Your task to perform on an android device: Empty the shopping cart on amazon. Search for "razer deathadder" on amazon, select the first entry, add it to the cart, then select checkout. Image 0: 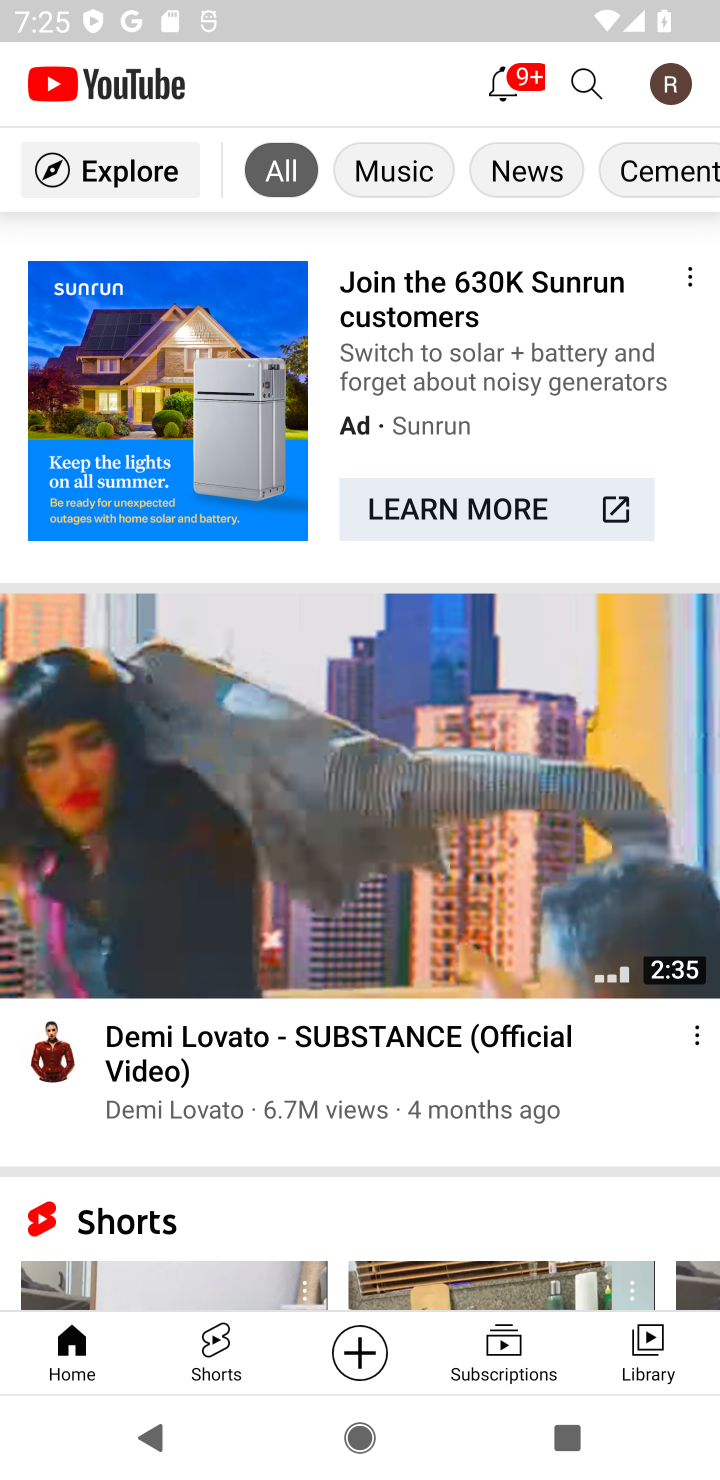
Step 0: press home button
Your task to perform on an android device: Empty the shopping cart on amazon. Search for "razer deathadder" on amazon, select the first entry, add it to the cart, then select checkout. Image 1: 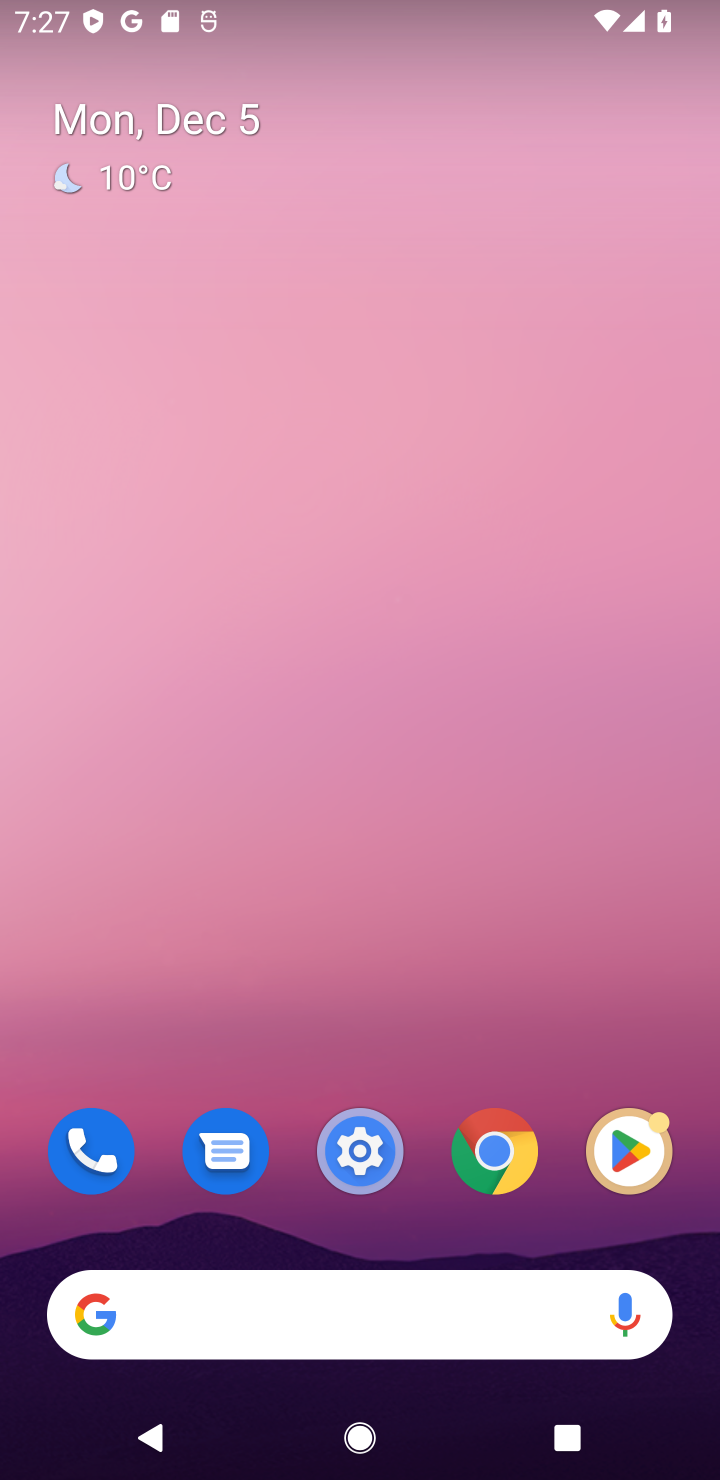
Step 1: click (175, 1303)
Your task to perform on an android device: Empty the shopping cart on amazon. Search for "razer deathadder" on amazon, select the first entry, add it to the cart, then select checkout. Image 2: 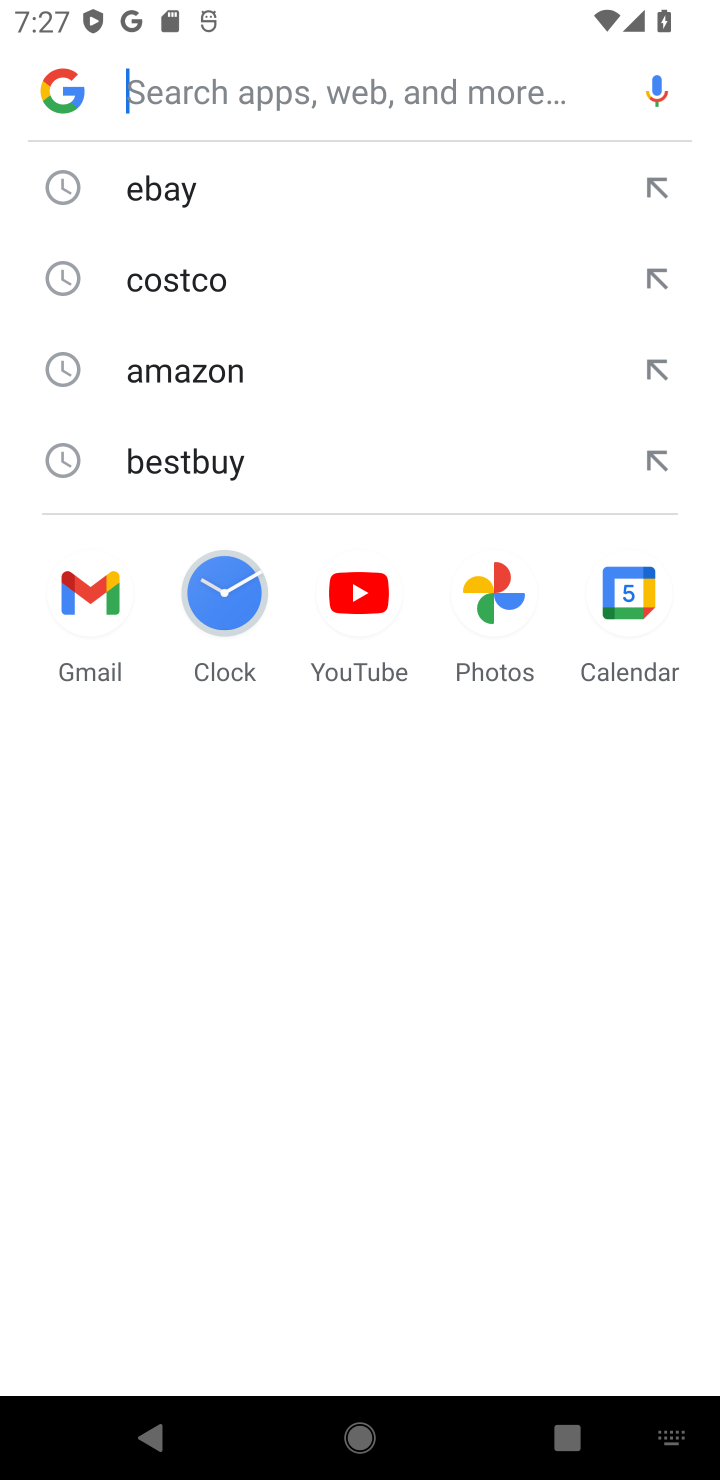
Step 2: type "ama"
Your task to perform on an android device: Empty the shopping cart on amazon. Search for "razer deathadder" on amazon, select the first entry, add it to the cart, then select checkout. Image 3: 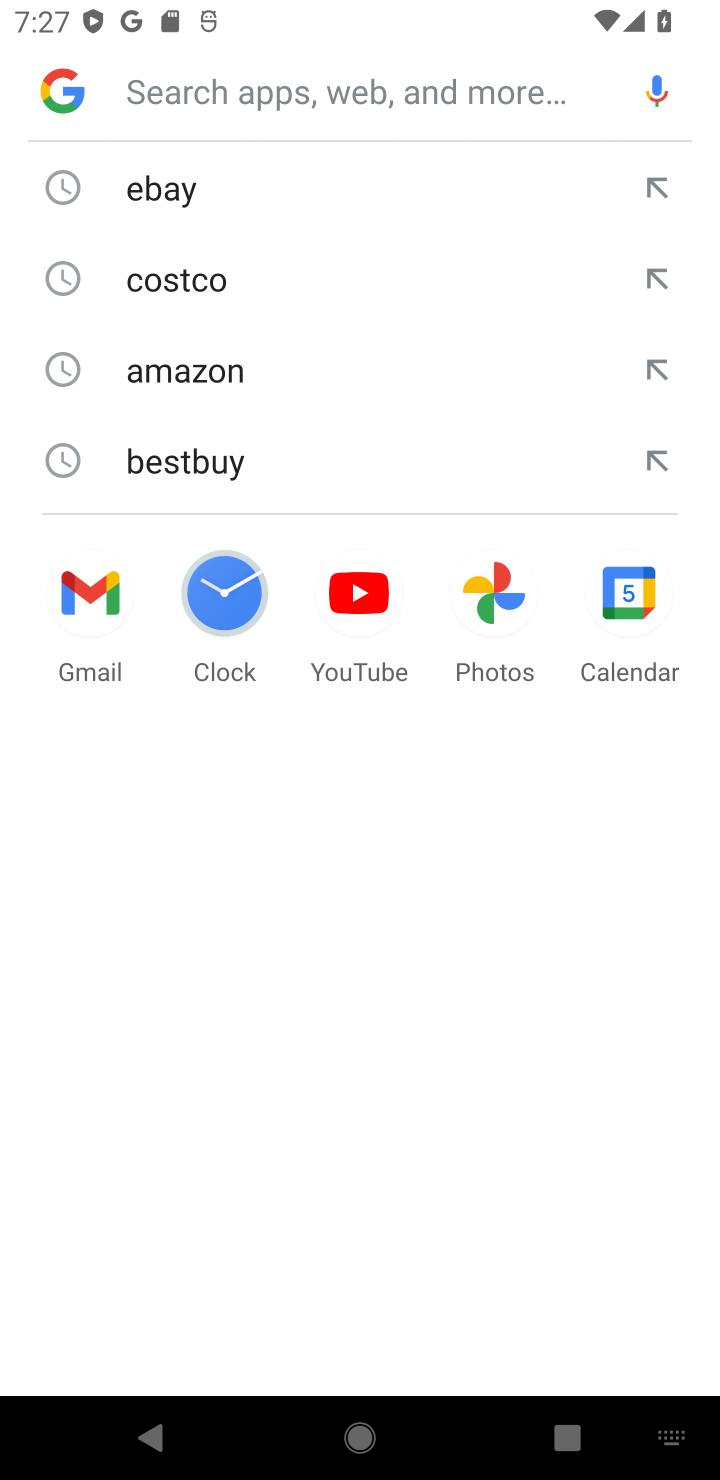
Step 3: click (194, 393)
Your task to perform on an android device: Empty the shopping cart on amazon. Search for "razer deathadder" on amazon, select the first entry, add it to the cart, then select checkout. Image 4: 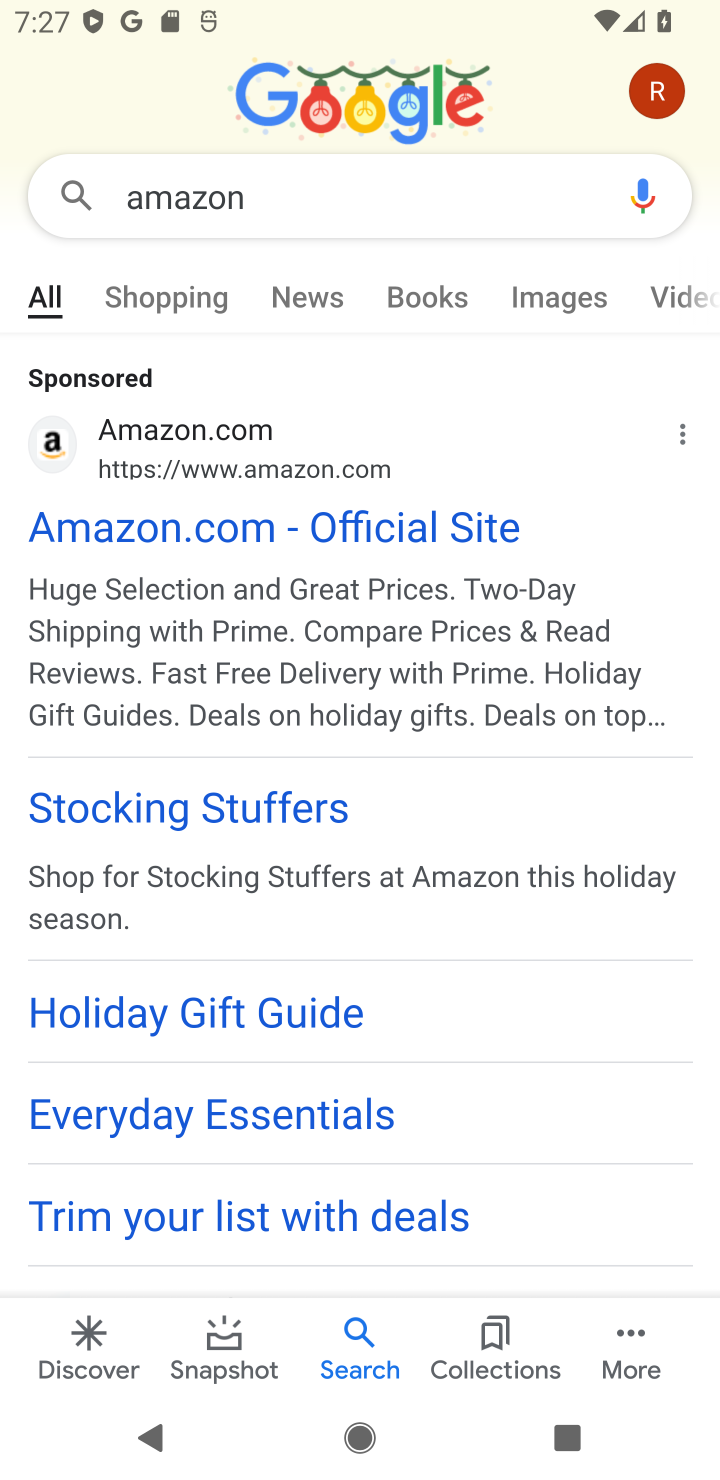
Step 4: click (103, 546)
Your task to perform on an android device: Empty the shopping cart on amazon. Search for "razer deathadder" on amazon, select the first entry, add it to the cart, then select checkout. Image 5: 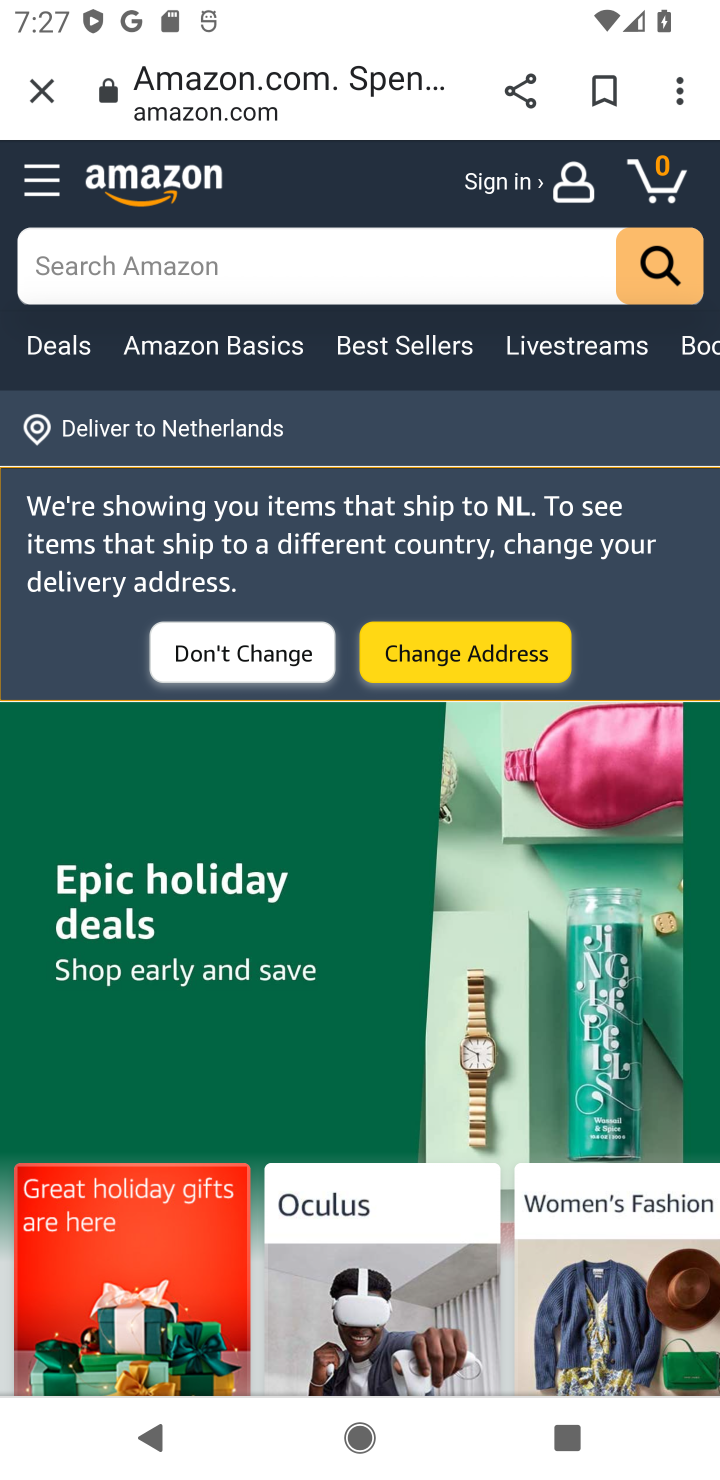
Step 5: click (294, 258)
Your task to perform on an android device: Empty the shopping cart on amazon. Search for "razer deathadder" on amazon, select the first entry, add it to the cart, then select checkout. Image 6: 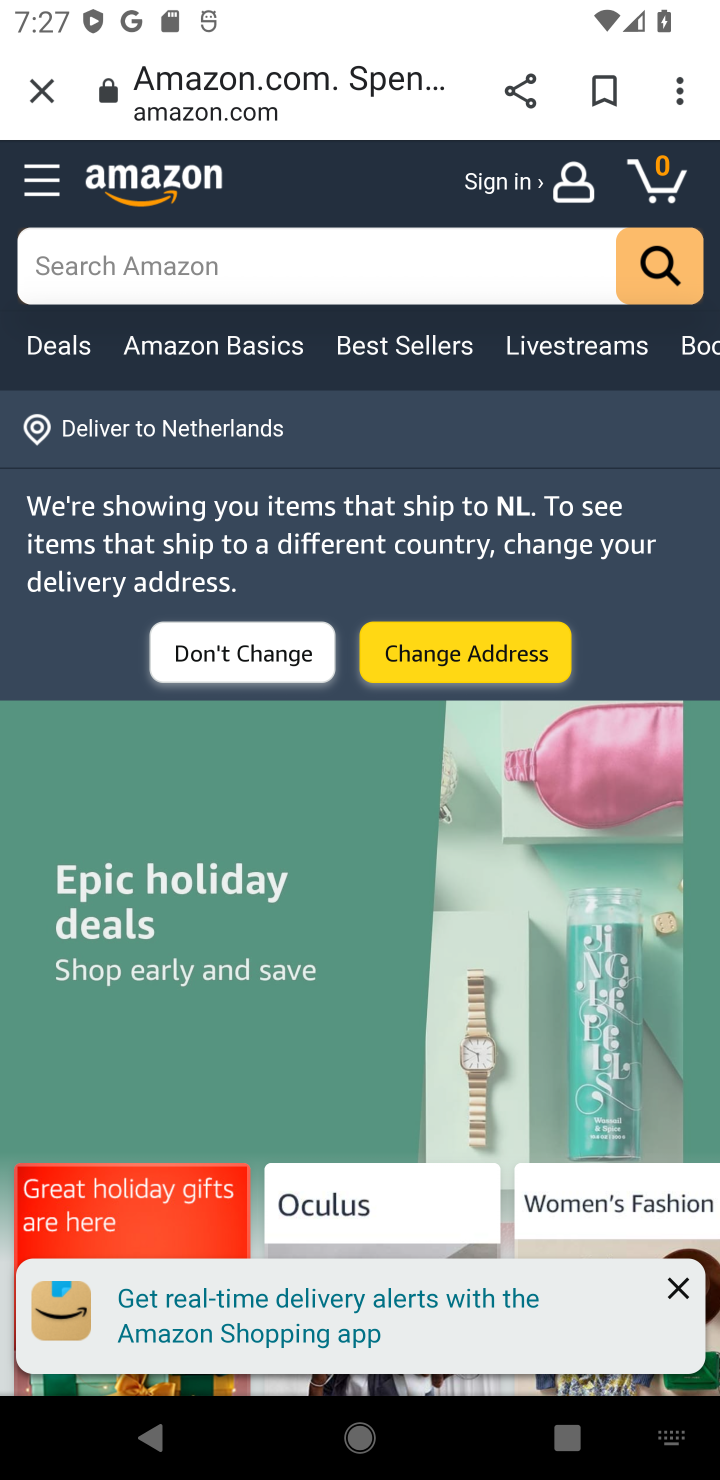
Step 6: type "razer deathadder"
Your task to perform on an android device: Empty the shopping cart on amazon. Search for "razer deathadder" on amazon, select the first entry, add it to the cart, then select checkout. Image 7: 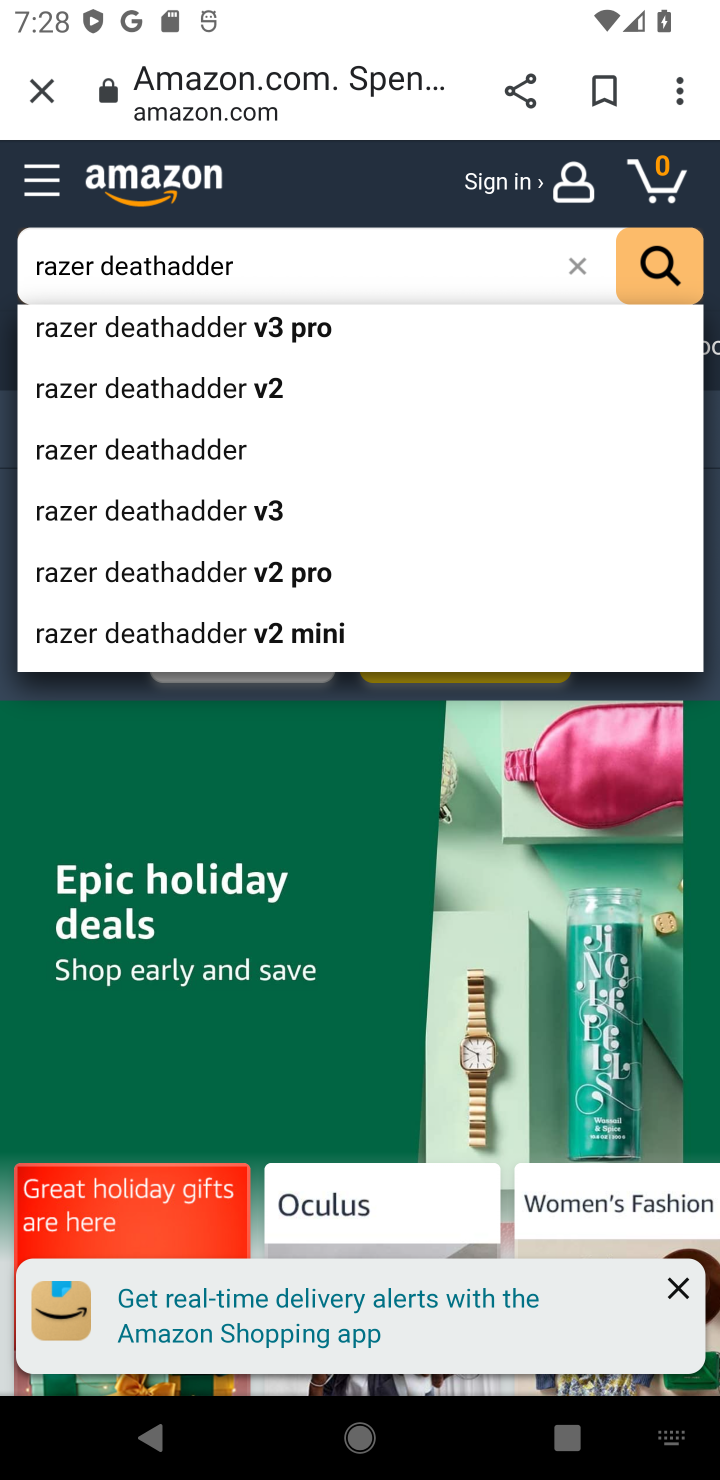
Step 7: click (645, 288)
Your task to perform on an android device: Empty the shopping cart on amazon. Search for "razer deathadder" on amazon, select the first entry, add it to the cart, then select checkout. Image 8: 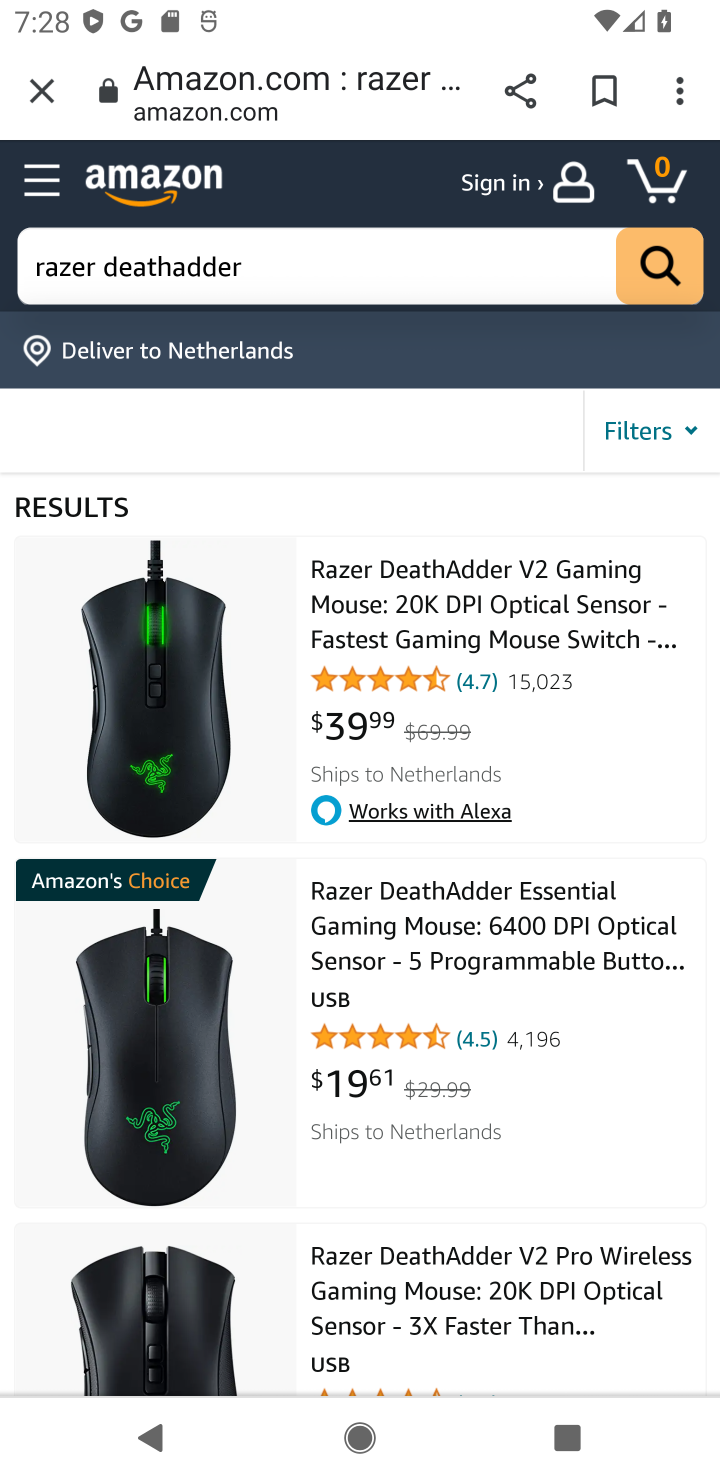
Step 8: click (424, 583)
Your task to perform on an android device: Empty the shopping cart on amazon. Search for "razer deathadder" on amazon, select the first entry, add it to the cart, then select checkout. Image 9: 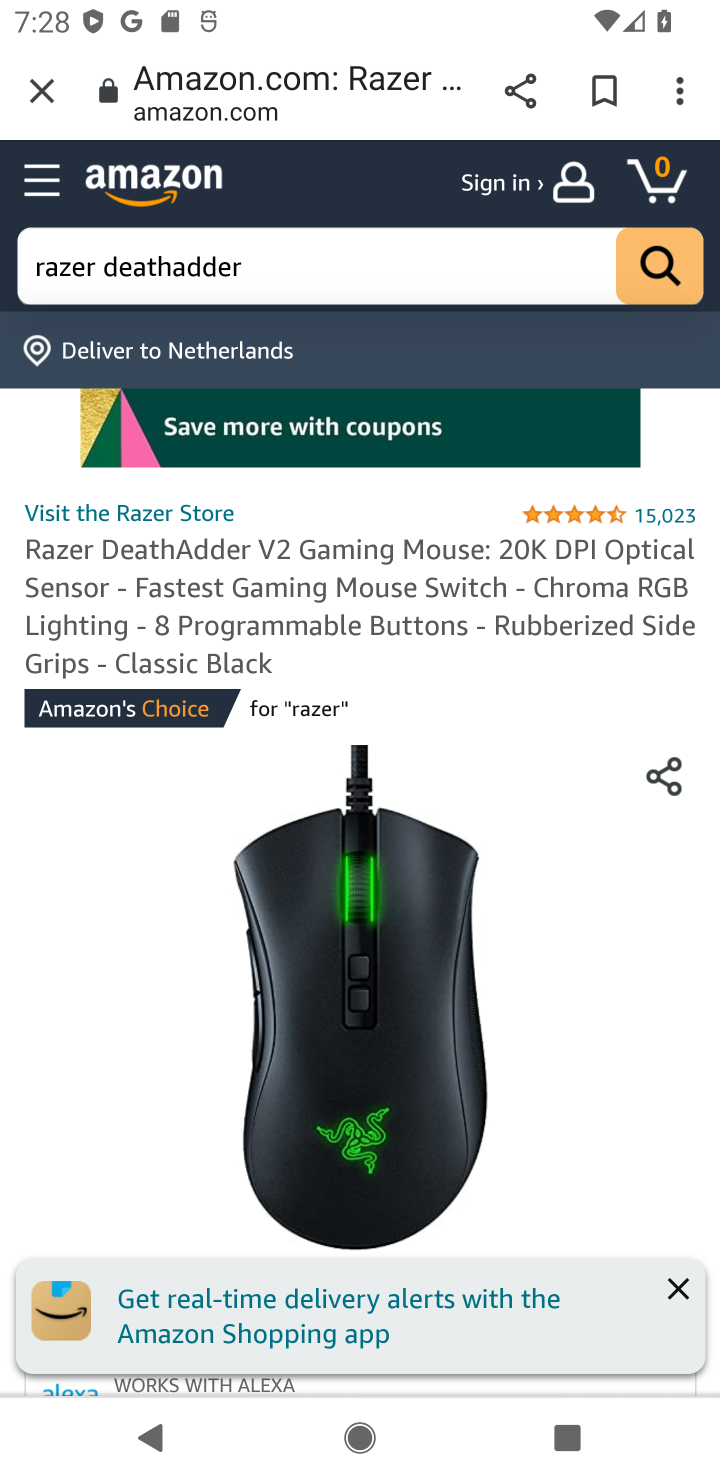
Step 9: drag from (201, 1224) to (534, 180)
Your task to perform on an android device: Empty the shopping cart on amazon. Search for "razer deathadder" on amazon, select the first entry, add it to the cart, then select checkout. Image 10: 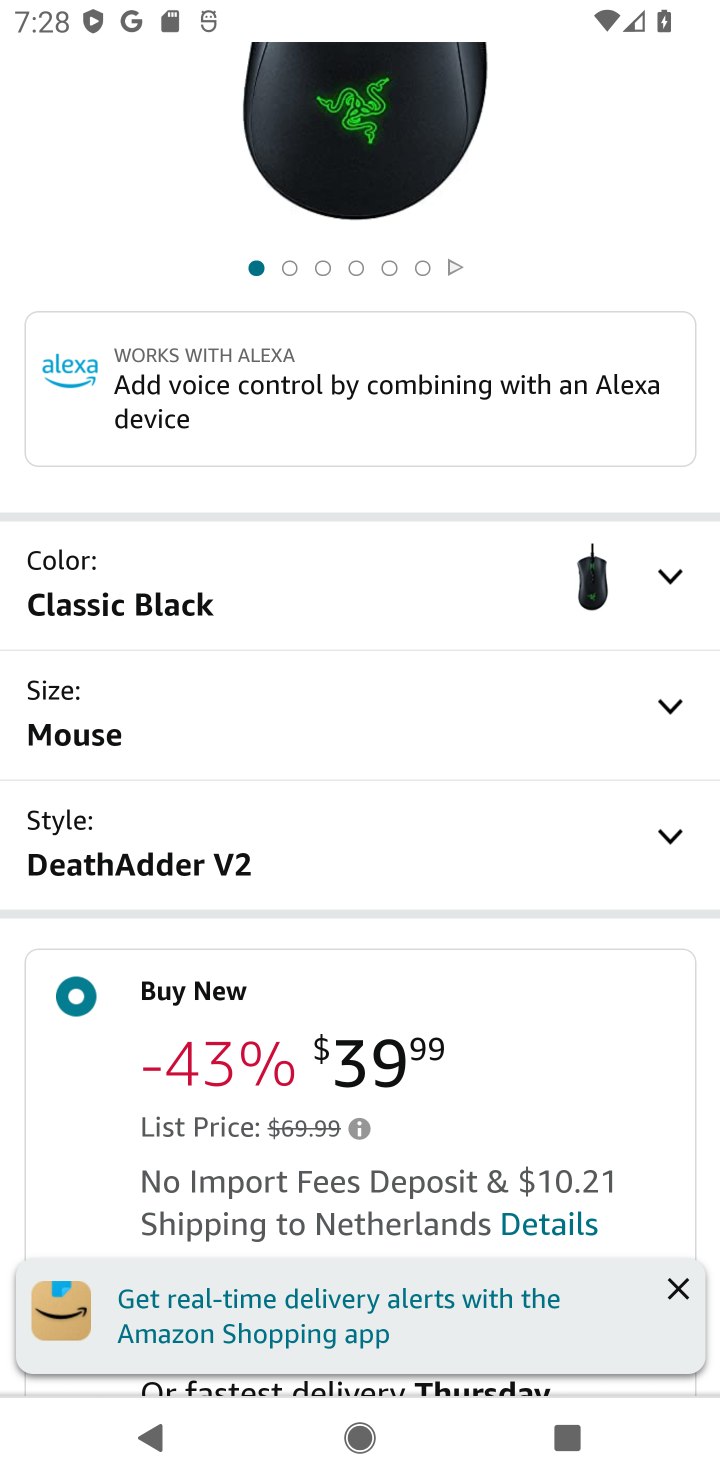
Step 10: click (700, 1285)
Your task to perform on an android device: Empty the shopping cart on amazon. Search for "razer deathadder" on amazon, select the first entry, add it to the cart, then select checkout. Image 11: 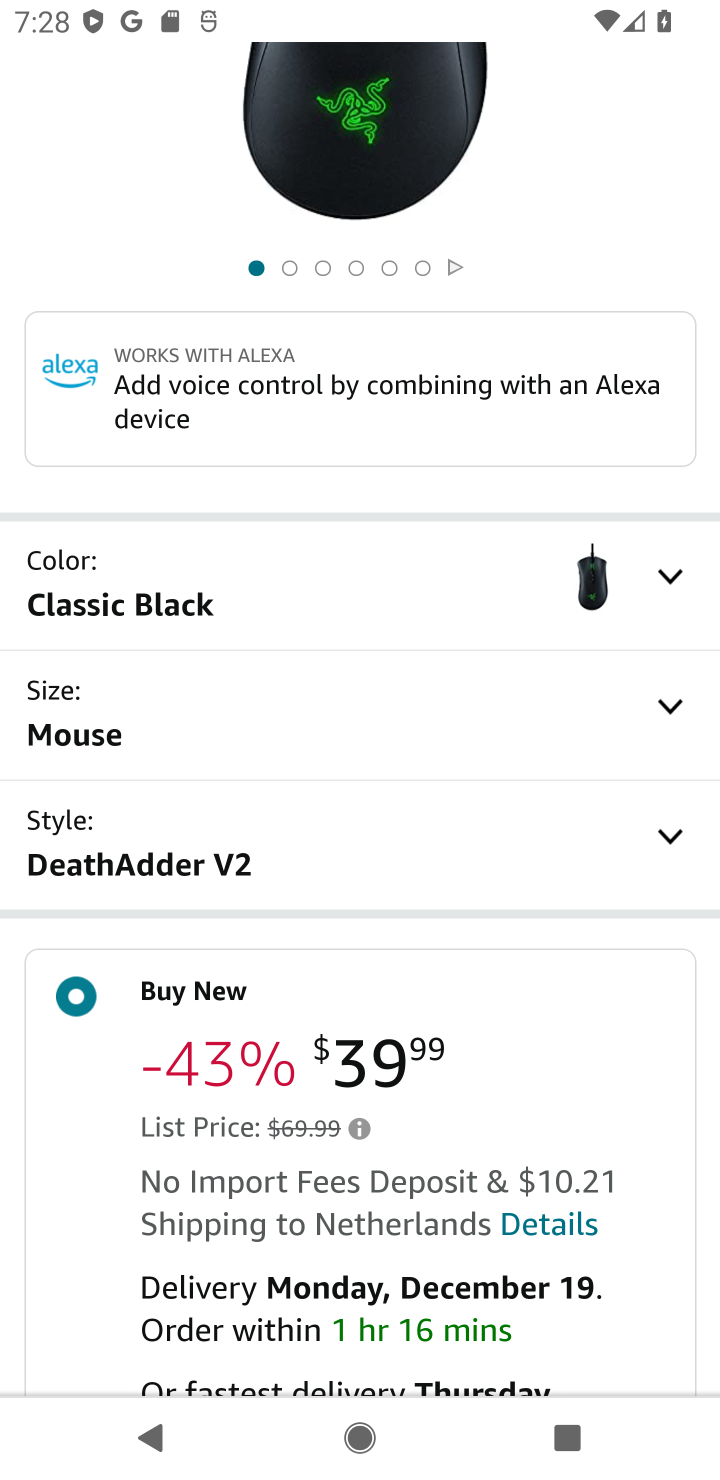
Step 11: drag from (634, 1294) to (601, 944)
Your task to perform on an android device: Empty the shopping cart on amazon. Search for "razer deathadder" on amazon, select the first entry, add it to the cart, then select checkout. Image 12: 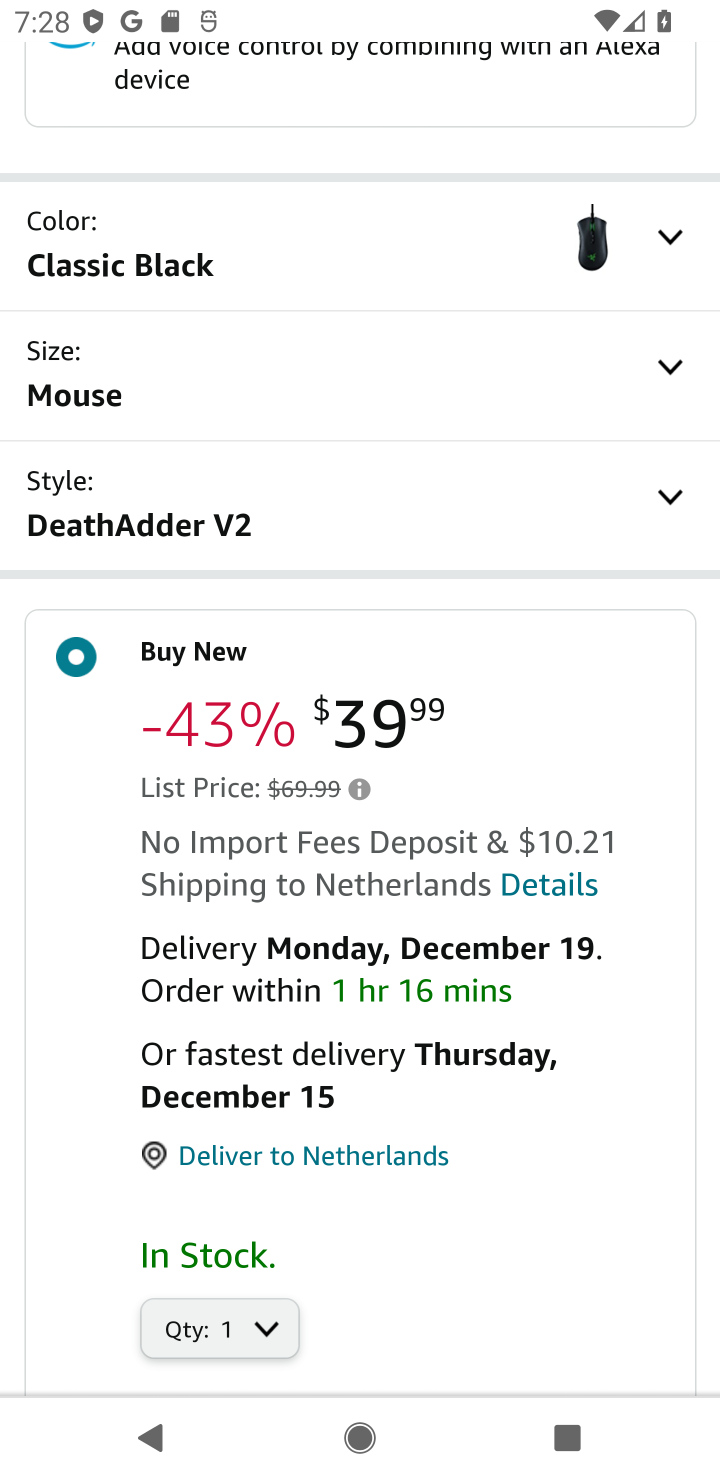
Step 12: drag from (471, 1268) to (473, 1019)
Your task to perform on an android device: Empty the shopping cart on amazon. Search for "razer deathadder" on amazon, select the first entry, add it to the cart, then select checkout. Image 13: 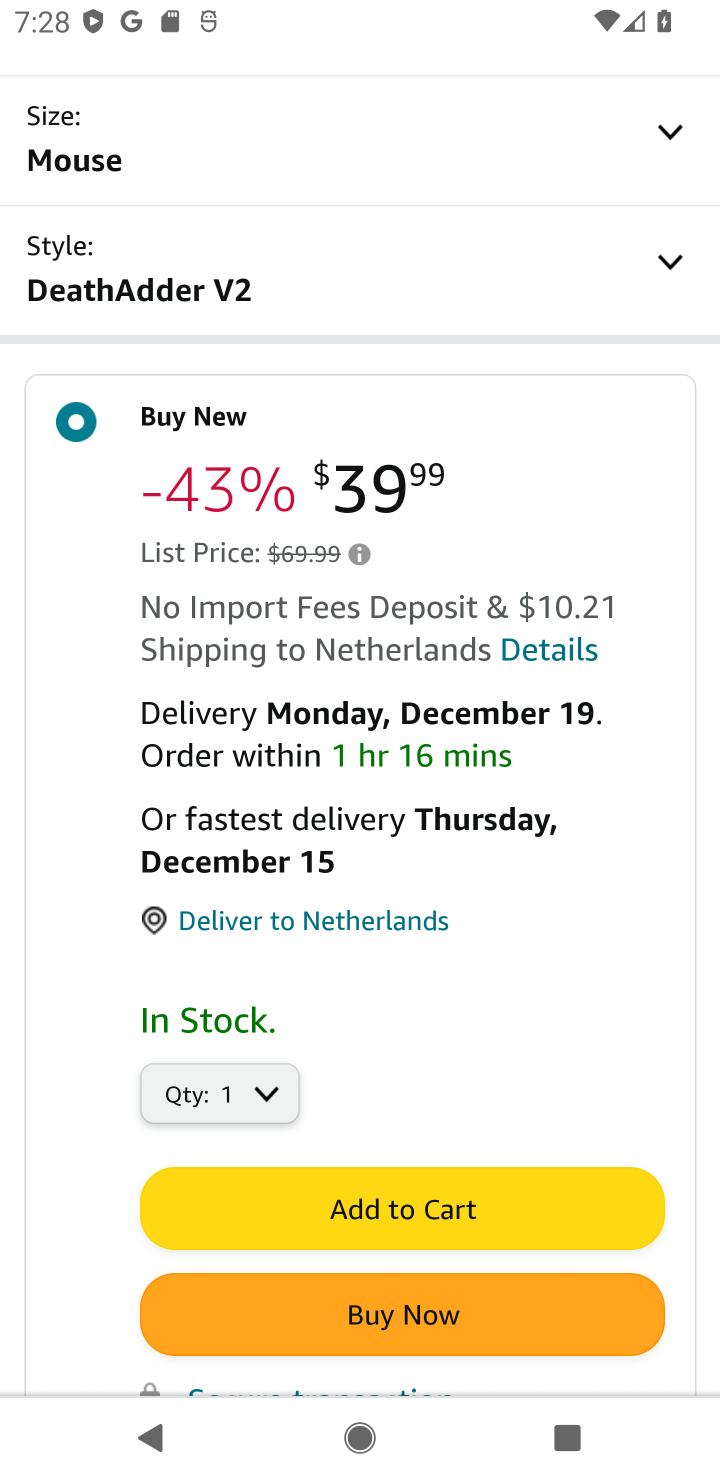
Step 13: click (431, 1201)
Your task to perform on an android device: Empty the shopping cart on amazon. Search for "razer deathadder" on amazon, select the first entry, add it to the cart, then select checkout. Image 14: 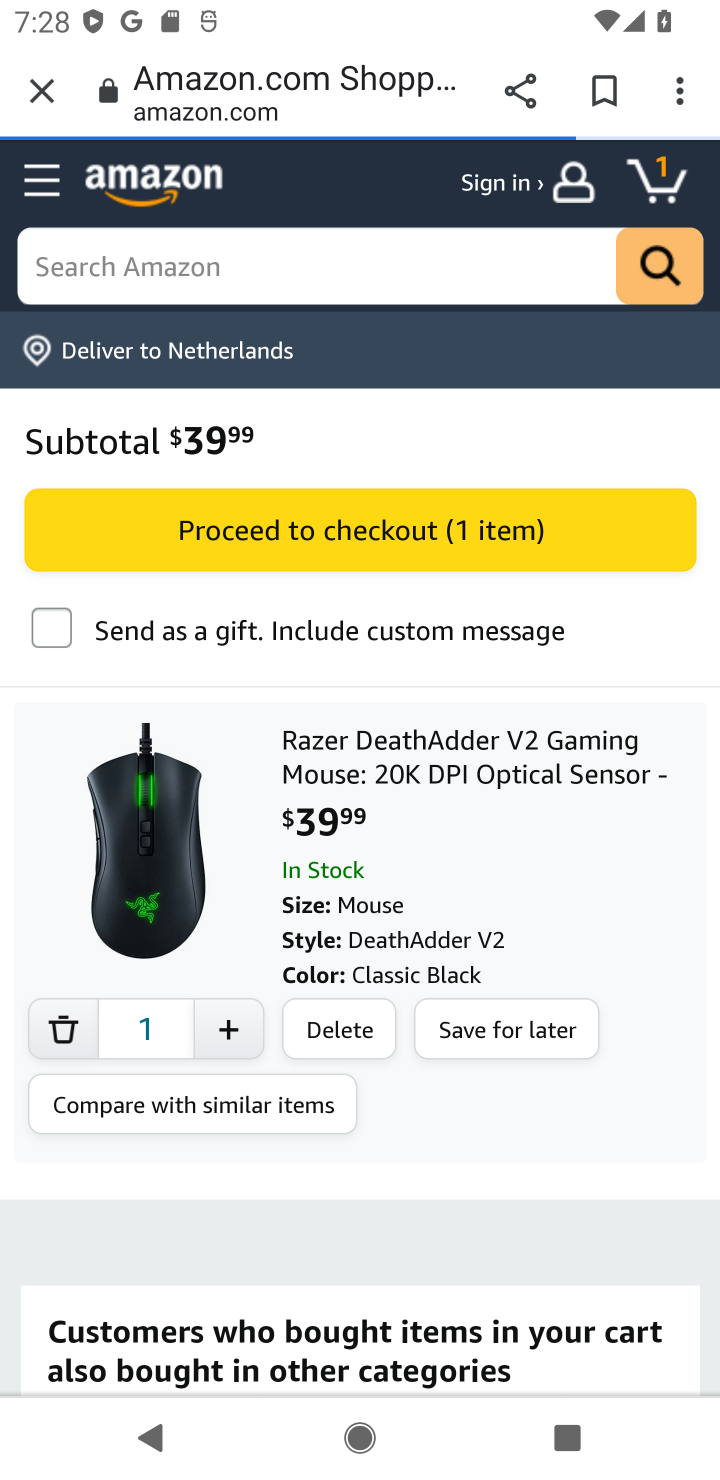
Step 14: task complete